Your task to perform on an android device: Open the stopwatch Image 0: 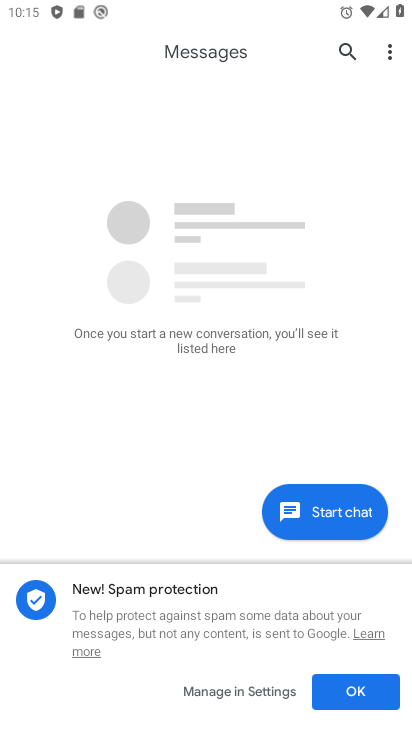
Step 0: press home button
Your task to perform on an android device: Open the stopwatch Image 1: 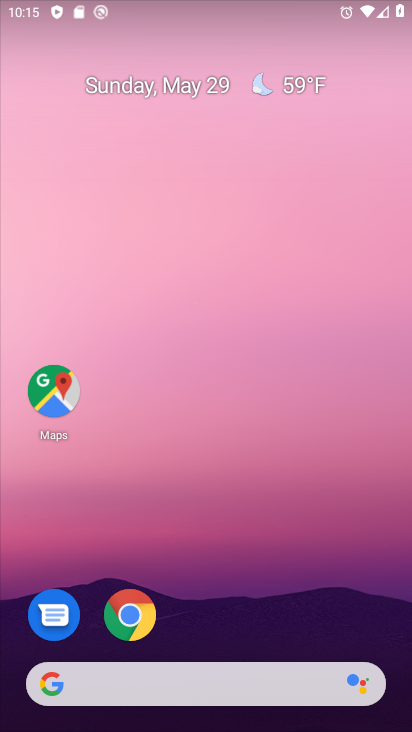
Step 1: drag from (245, 614) to (317, 84)
Your task to perform on an android device: Open the stopwatch Image 2: 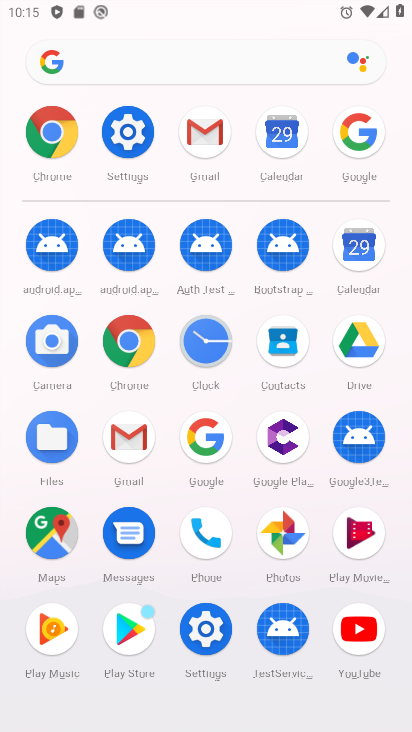
Step 2: click (196, 348)
Your task to perform on an android device: Open the stopwatch Image 3: 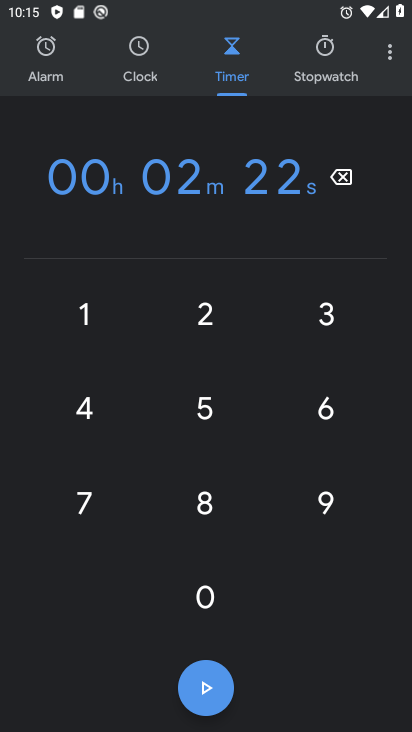
Step 3: click (333, 47)
Your task to perform on an android device: Open the stopwatch Image 4: 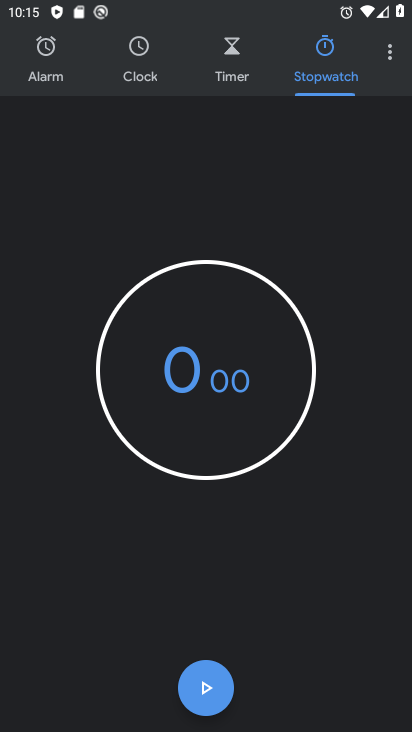
Step 4: click (212, 675)
Your task to perform on an android device: Open the stopwatch Image 5: 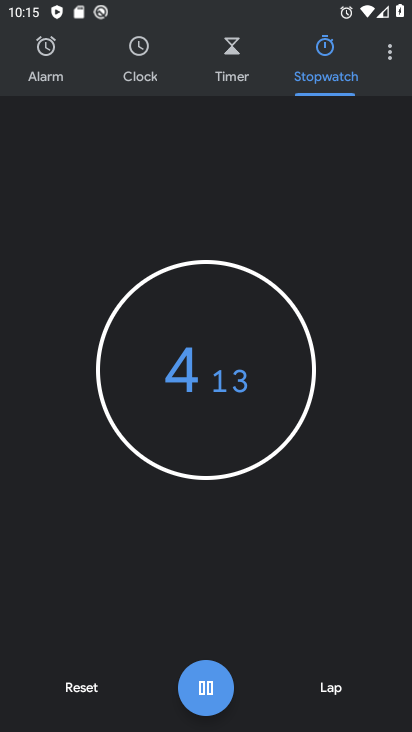
Step 5: task complete